Your task to perform on an android device: turn on wifi Image 0: 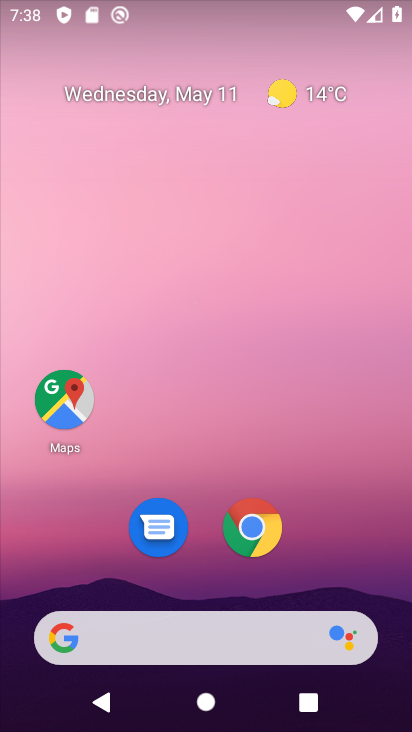
Step 0: drag from (240, 650) to (245, 128)
Your task to perform on an android device: turn on wifi Image 1: 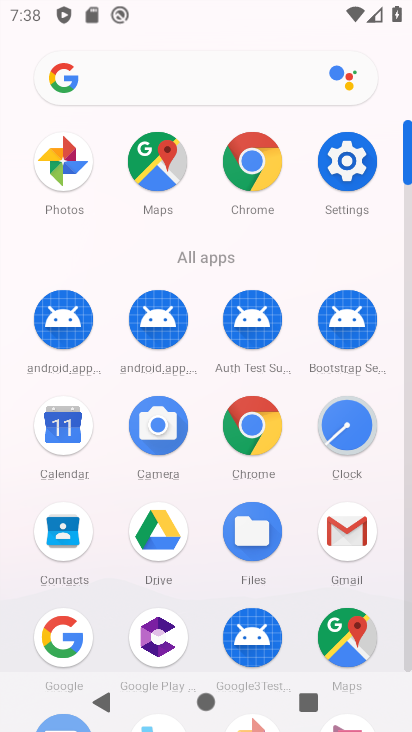
Step 1: click (343, 166)
Your task to perform on an android device: turn on wifi Image 2: 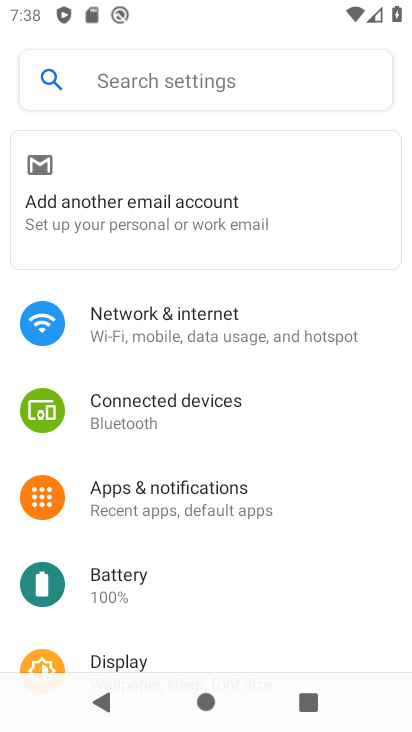
Step 2: drag from (196, 506) to (201, 274)
Your task to perform on an android device: turn on wifi Image 3: 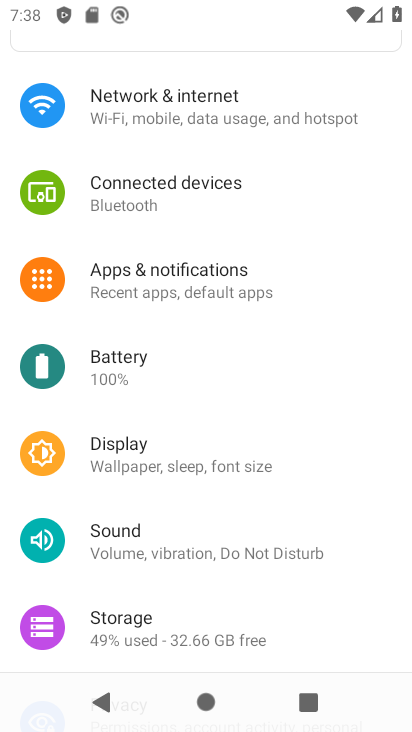
Step 3: click (223, 133)
Your task to perform on an android device: turn on wifi Image 4: 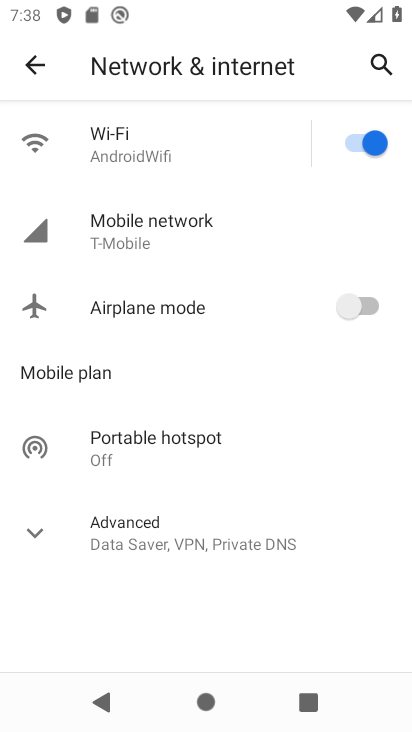
Step 4: click (197, 154)
Your task to perform on an android device: turn on wifi Image 5: 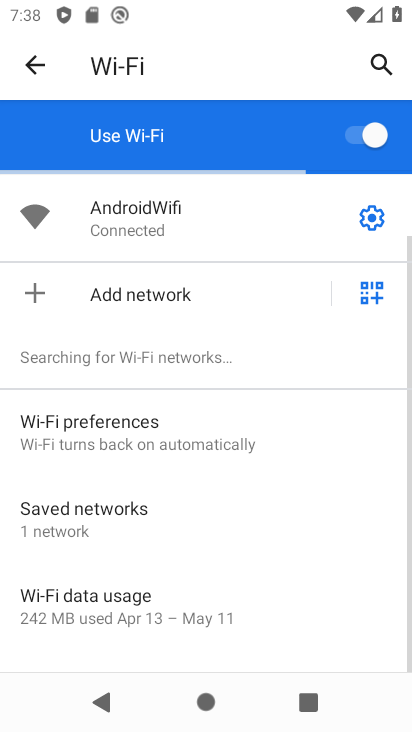
Step 5: task complete